Your task to perform on an android device: turn off smart reply in the gmail app Image 0: 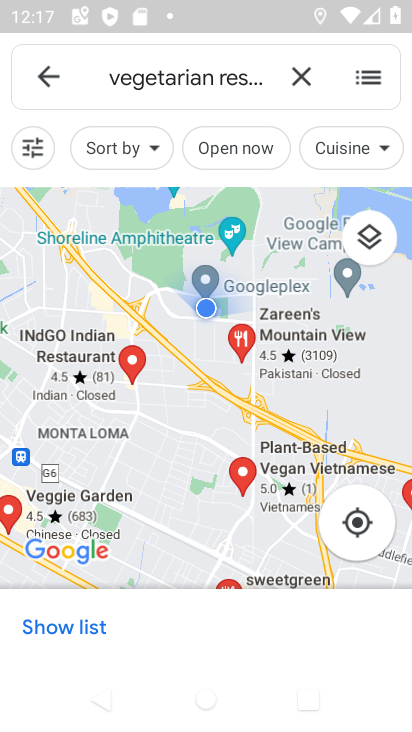
Step 0: press home button
Your task to perform on an android device: turn off smart reply in the gmail app Image 1: 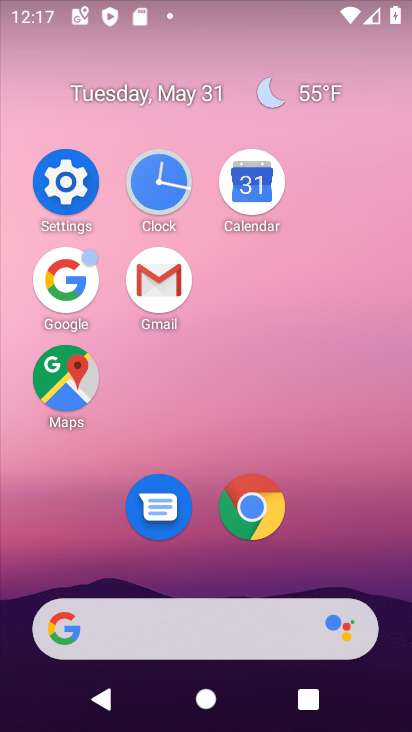
Step 1: click (165, 281)
Your task to perform on an android device: turn off smart reply in the gmail app Image 2: 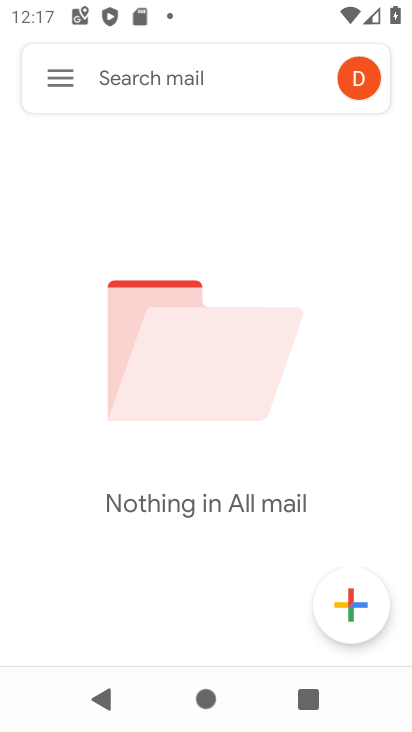
Step 2: click (71, 78)
Your task to perform on an android device: turn off smart reply in the gmail app Image 3: 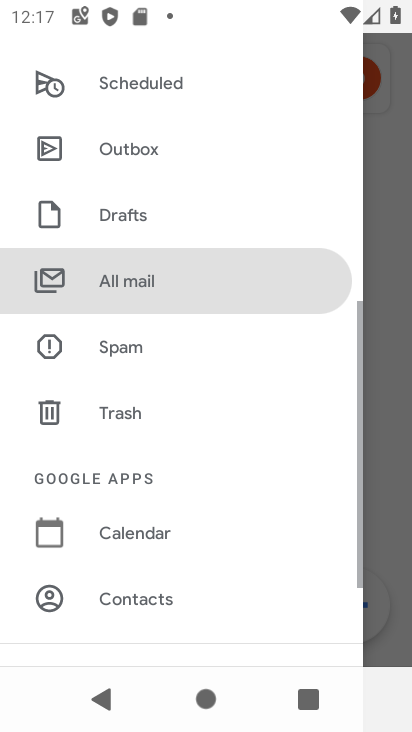
Step 3: drag from (207, 500) to (226, 159)
Your task to perform on an android device: turn off smart reply in the gmail app Image 4: 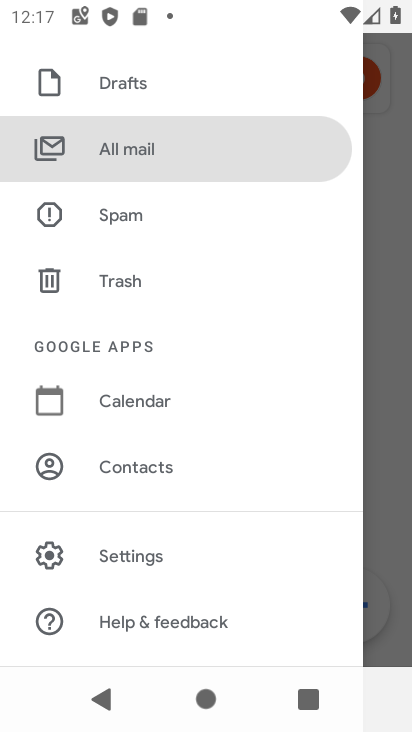
Step 4: click (167, 564)
Your task to perform on an android device: turn off smart reply in the gmail app Image 5: 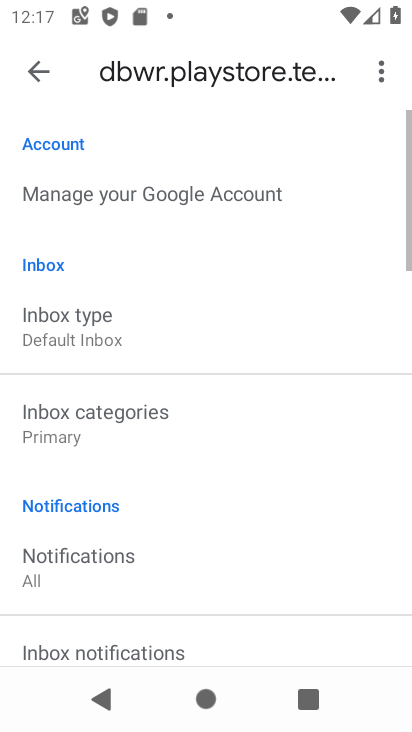
Step 5: drag from (167, 564) to (167, 303)
Your task to perform on an android device: turn off smart reply in the gmail app Image 6: 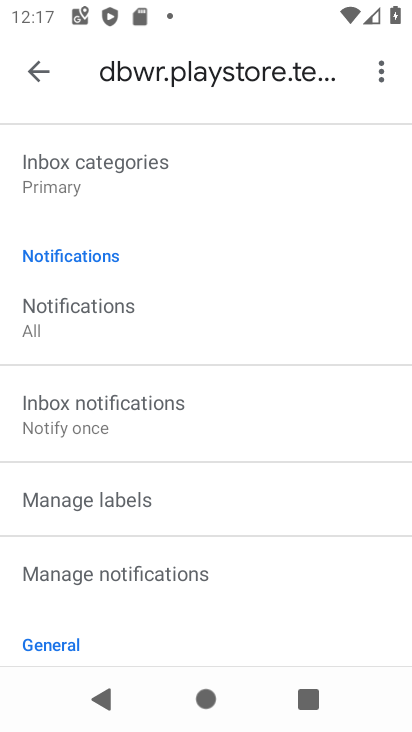
Step 6: drag from (209, 546) to (227, 197)
Your task to perform on an android device: turn off smart reply in the gmail app Image 7: 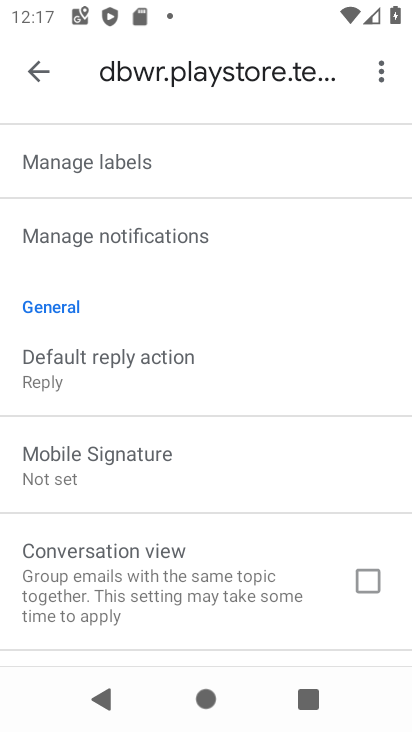
Step 7: drag from (223, 564) to (222, 236)
Your task to perform on an android device: turn off smart reply in the gmail app Image 8: 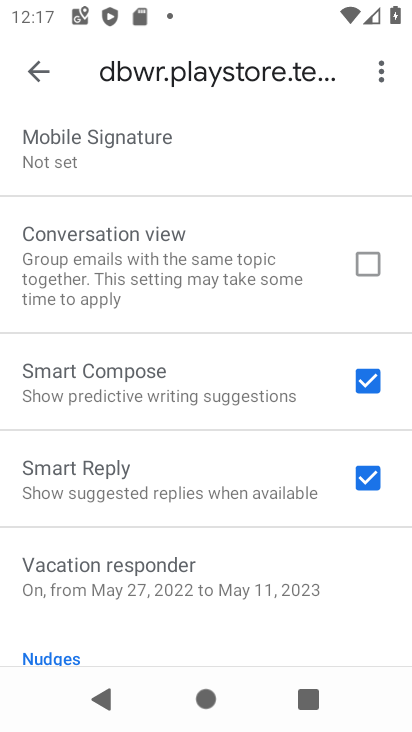
Step 8: click (371, 488)
Your task to perform on an android device: turn off smart reply in the gmail app Image 9: 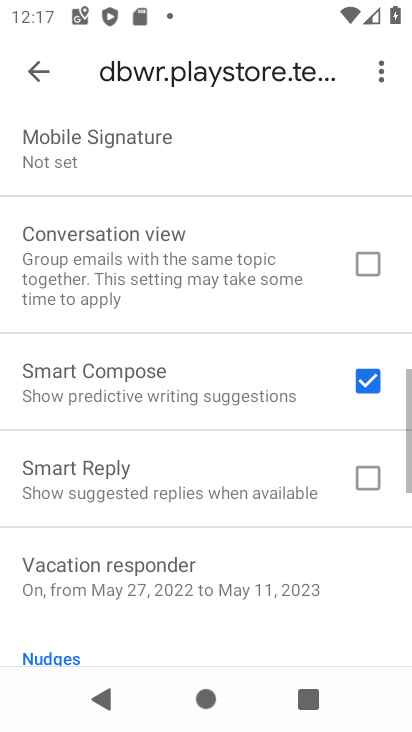
Step 9: task complete